Your task to perform on an android device: Go to privacy settings Image 0: 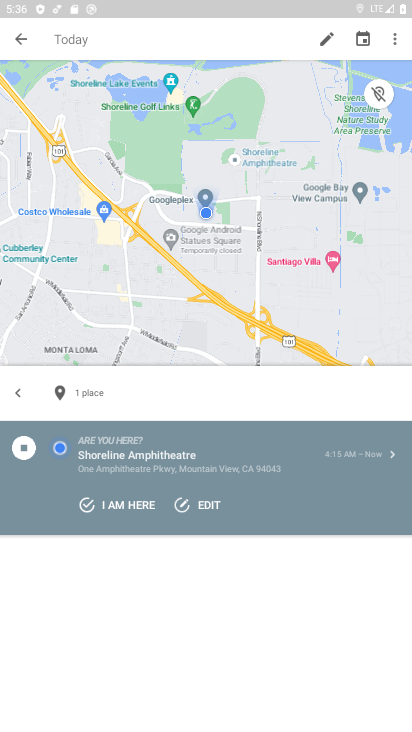
Step 0: press home button
Your task to perform on an android device: Go to privacy settings Image 1: 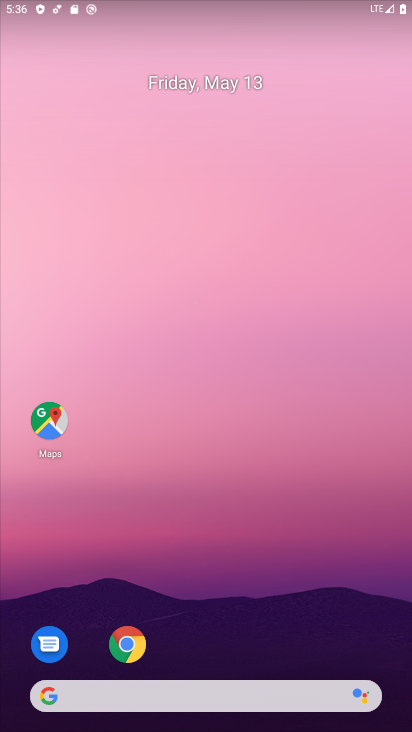
Step 1: drag from (218, 644) to (279, 33)
Your task to perform on an android device: Go to privacy settings Image 2: 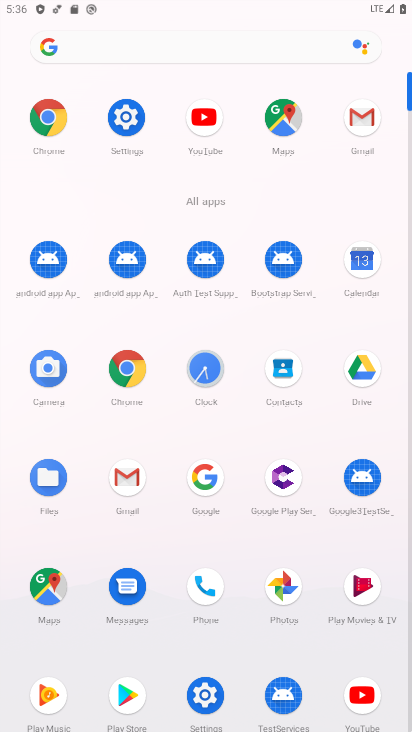
Step 2: click (192, 691)
Your task to perform on an android device: Go to privacy settings Image 3: 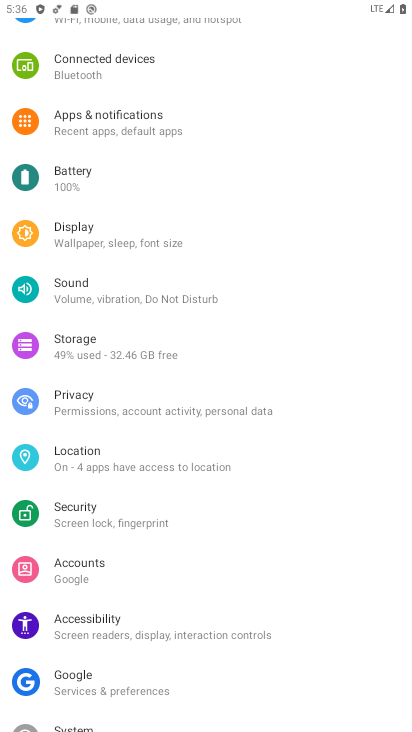
Step 3: click (163, 408)
Your task to perform on an android device: Go to privacy settings Image 4: 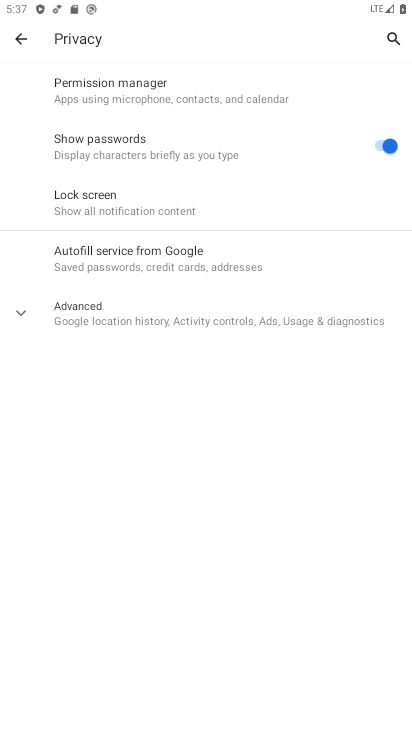
Step 4: task complete